Your task to perform on an android device: turn on translation in the chrome app Image 0: 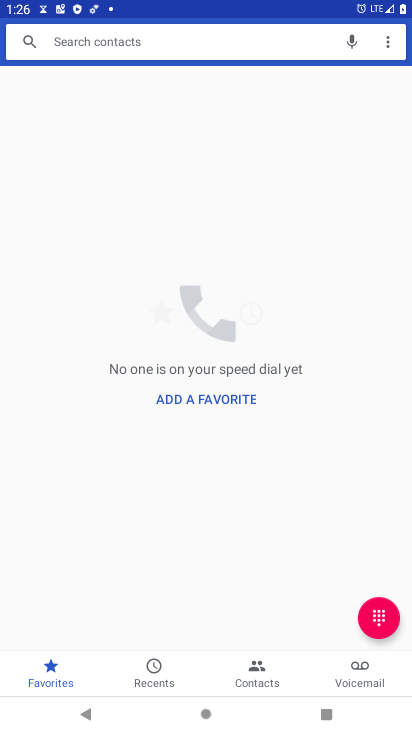
Step 0: press home button
Your task to perform on an android device: turn on translation in the chrome app Image 1: 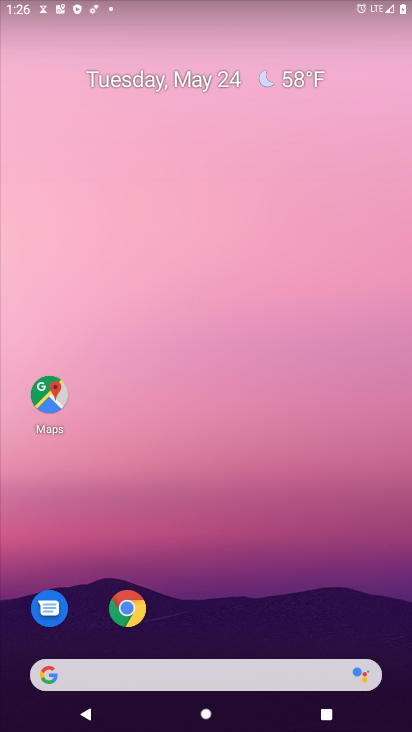
Step 1: drag from (252, 694) to (139, 194)
Your task to perform on an android device: turn on translation in the chrome app Image 2: 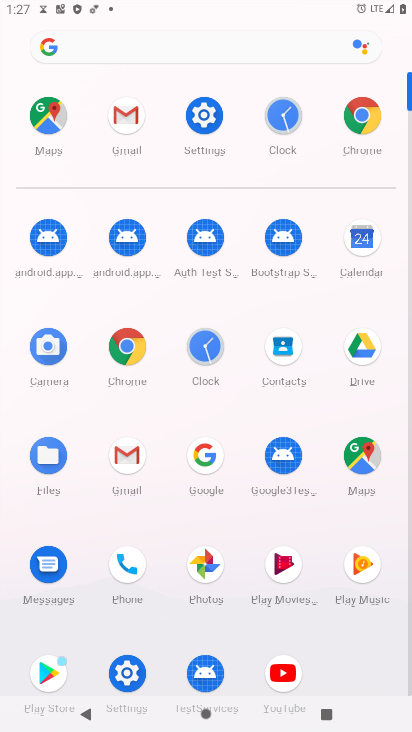
Step 2: click (128, 342)
Your task to perform on an android device: turn on translation in the chrome app Image 3: 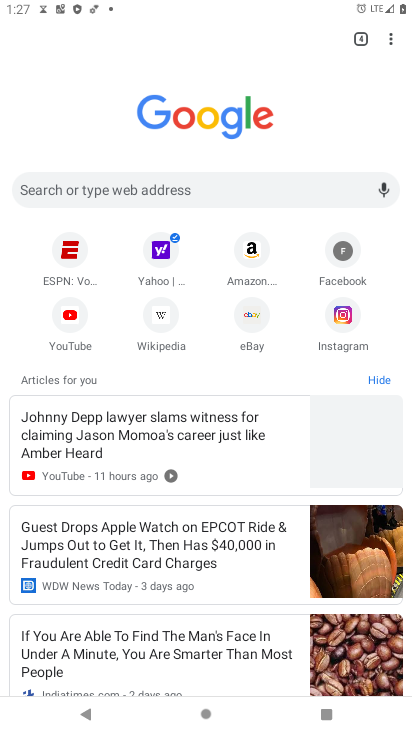
Step 3: click (389, 44)
Your task to perform on an android device: turn on translation in the chrome app Image 4: 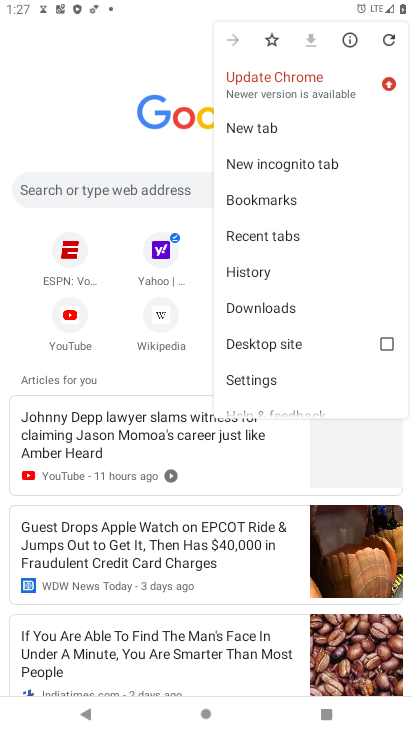
Step 4: click (271, 385)
Your task to perform on an android device: turn on translation in the chrome app Image 5: 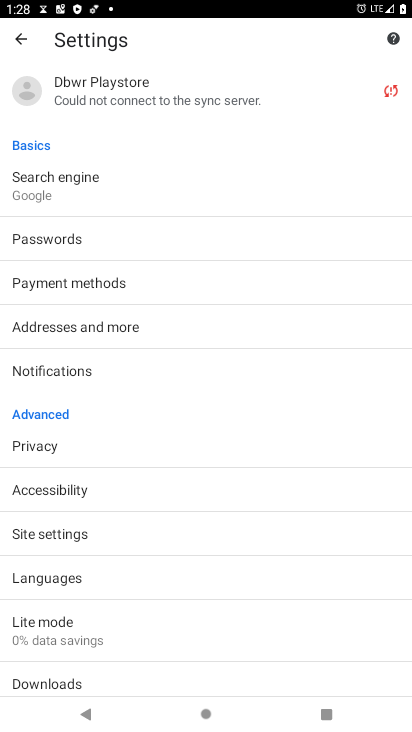
Step 5: click (79, 561)
Your task to perform on an android device: turn on translation in the chrome app Image 6: 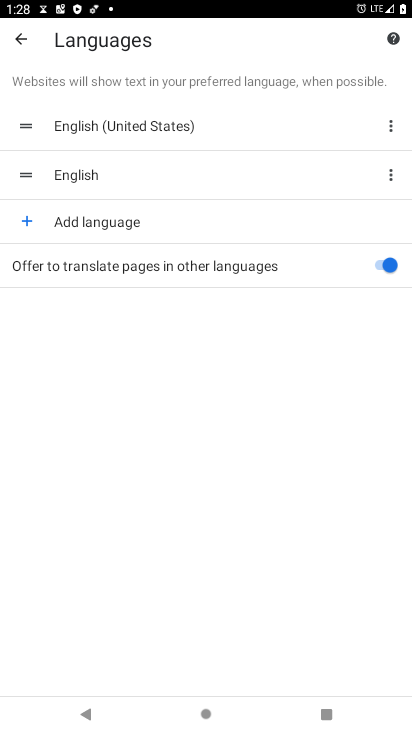
Step 6: click (396, 266)
Your task to perform on an android device: turn on translation in the chrome app Image 7: 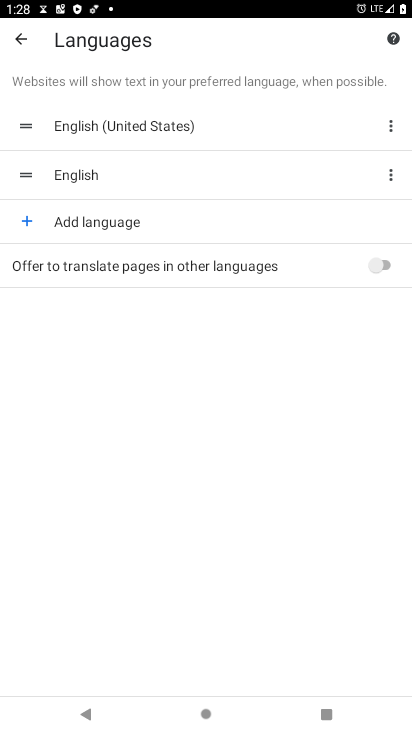
Step 7: click (388, 266)
Your task to perform on an android device: turn on translation in the chrome app Image 8: 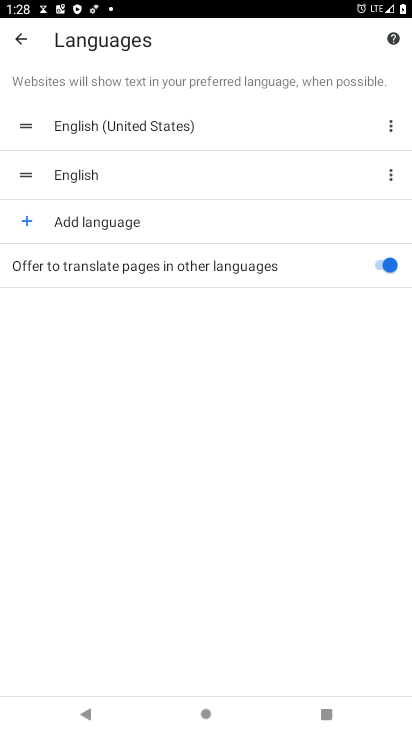
Step 8: task complete